Your task to perform on an android device: Check the news Image 0: 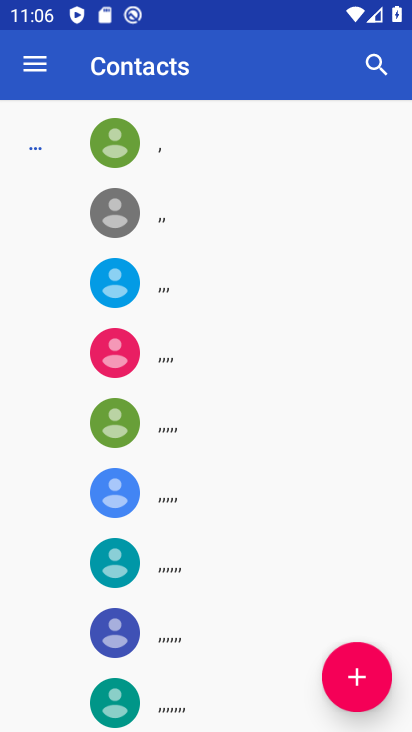
Step 0: press back button
Your task to perform on an android device: Check the news Image 1: 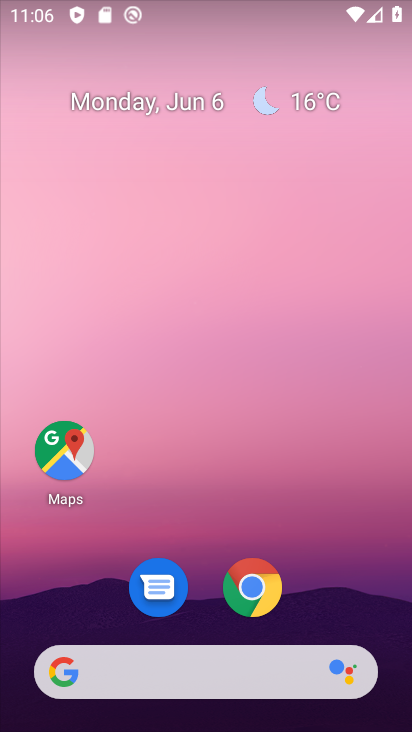
Step 1: drag from (296, 545) to (219, 32)
Your task to perform on an android device: Check the news Image 2: 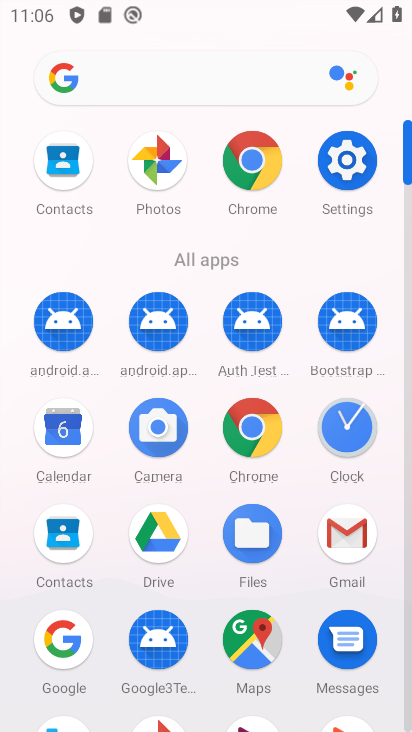
Step 2: click (245, 153)
Your task to perform on an android device: Check the news Image 3: 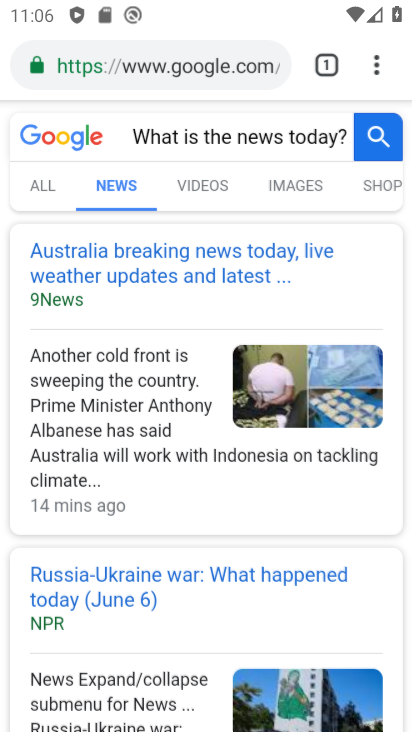
Step 3: click (225, 61)
Your task to perform on an android device: Check the news Image 4: 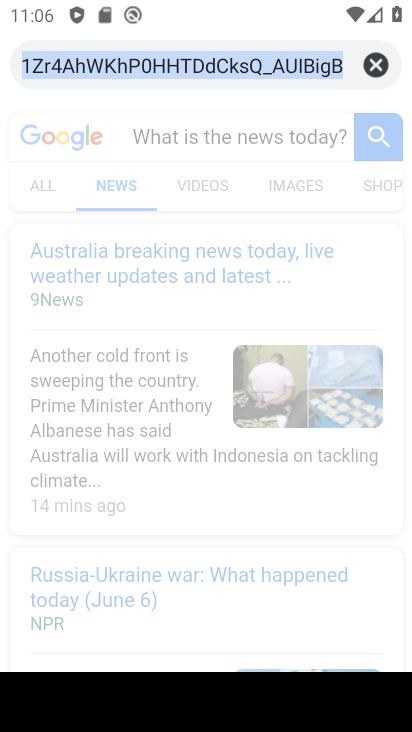
Step 4: click (368, 64)
Your task to perform on an android device: Check the news Image 5: 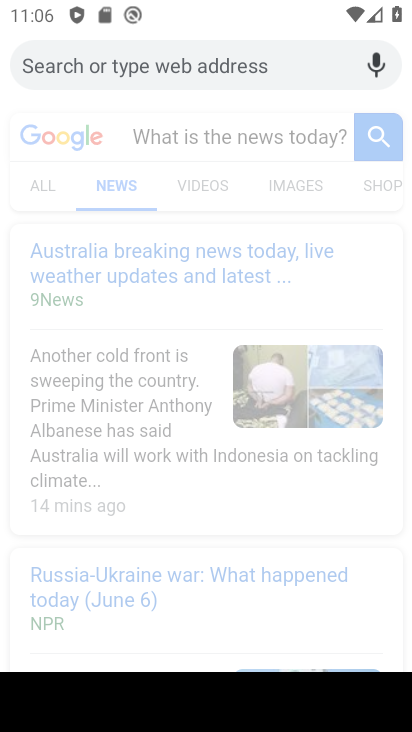
Step 5: type "Check the news"
Your task to perform on an android device: Check the news Image 6: 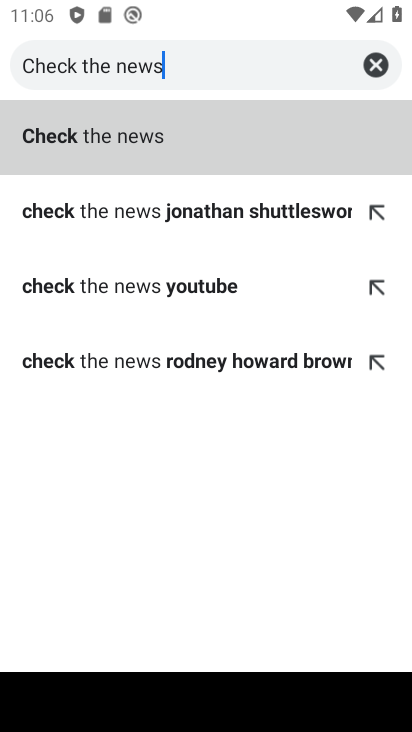
Step 6: type ""
Your task to perform on an android device: Check the news Image 7: 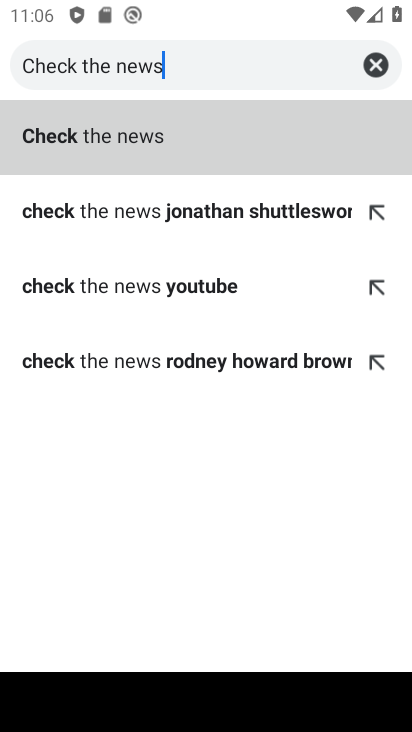
Step 7: click (178, 133)
Your task to perform on an android device: Check the news Image 8: 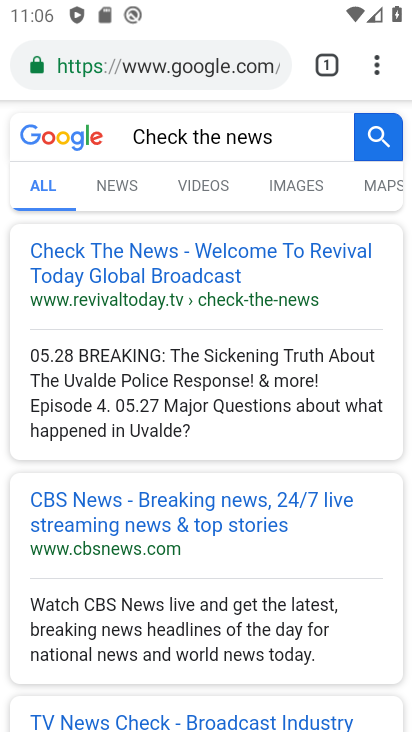
Step 8: click (109, 178)
Your task to perform on an android device: Check the news Image 9: 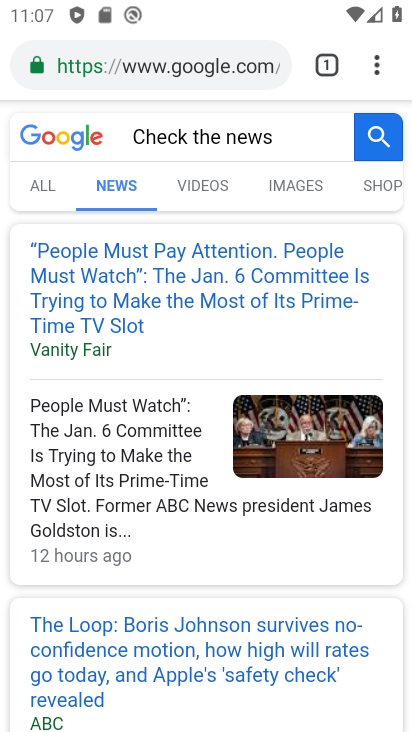
Step 9: task complete